Your task to perform on an android device: Open the calendar app, open the side menu, and click the "Day" option Image 0: 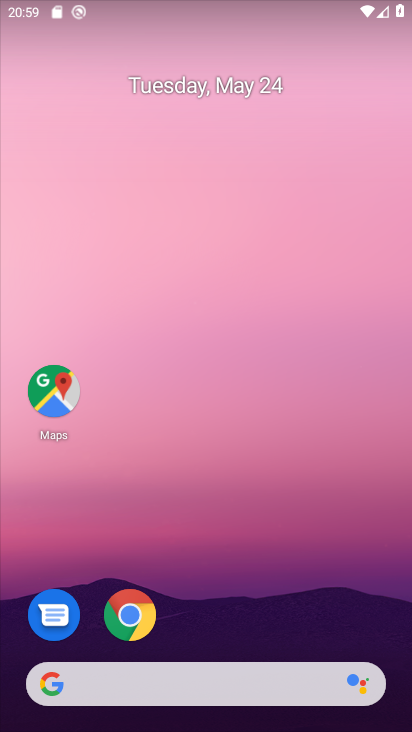
Step 0: drag from (260, 544) to (295, 268)
Your task to perform on an android device: Open the calendar app, open the side menu, and click the "Day" option Image 1: 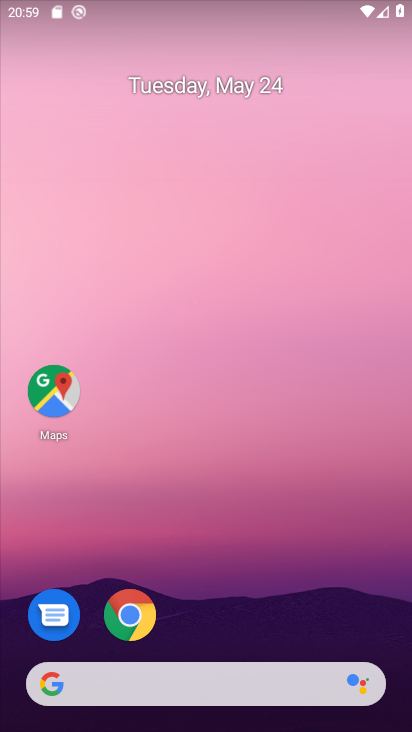
Step 1: drag from (245, 581) to (245, 254)
Your task to perform on an android device: Open the calendar app, open the side menu, and click the "Day" option Image 2: 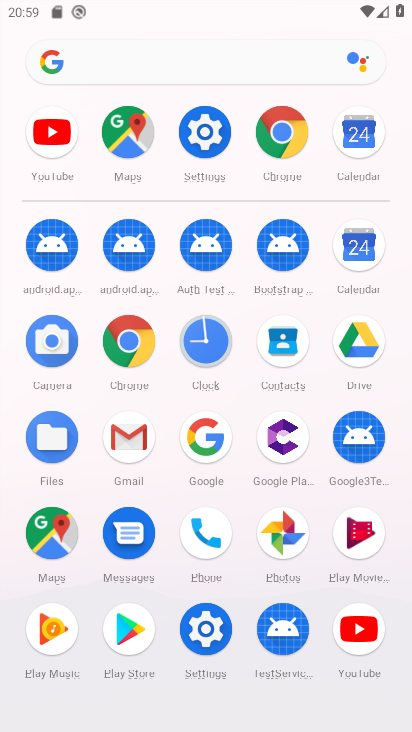
Step 2: click (355, 248)
Your task to perform on an android device: Open the calendar app, open the side menu, and click the "Day" option Image 3: 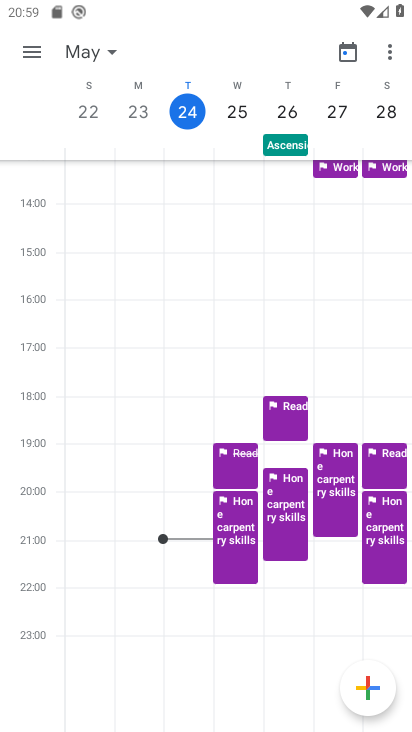
Step 3: click (44, 51)
Your task to perform on an android device: Open the calendar app, open the side menu, and click the "Day" option Image 4: 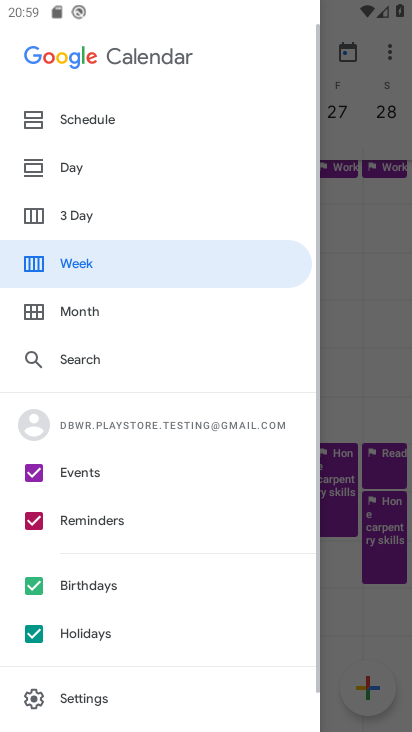
Step 4: click (78, 161)
Your task to perform on an android device: Open the calendar app, open the side menu, and click the "Day" option Image 5: 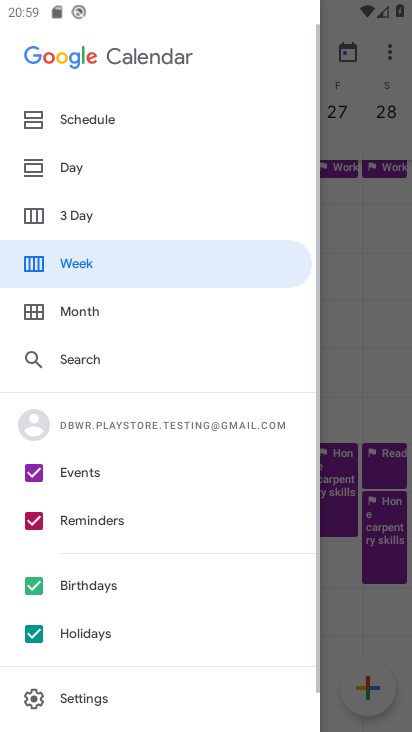
Step 5: click (87, 171)
Your task to perform on an android device: Open the calendar app, open the side menu, and click the "Day" option Image 6: 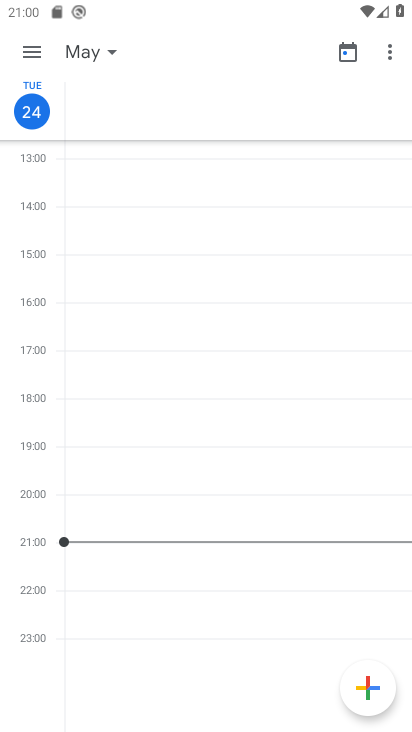
Step 6: task complete